Your task to perform on an android device: uninstall "McDonald's" Image 0: 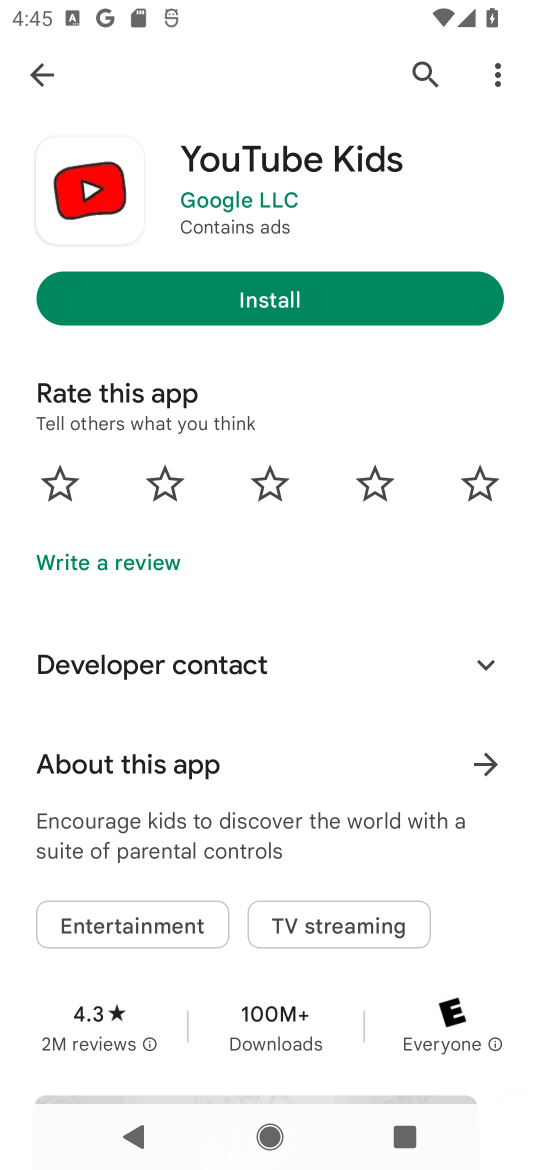
Step 0: click (23, 83)
Your task to perform on an android device: uninstall "McDonald's" Image 1: 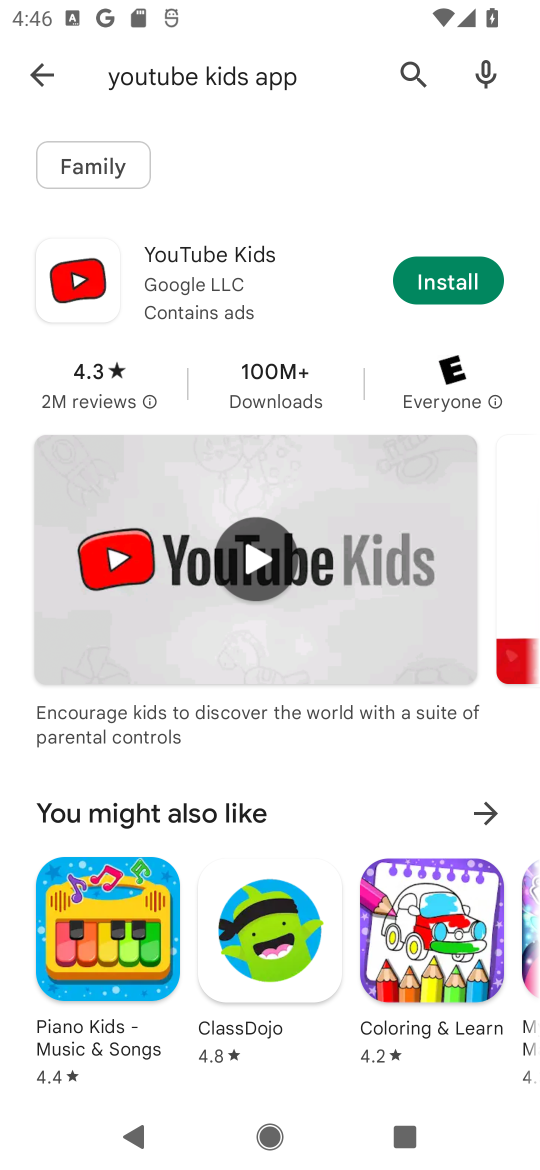
Step 1: click (42, 84)
Your task to perform on an android device: uninstall "McDonald's" Image 2: 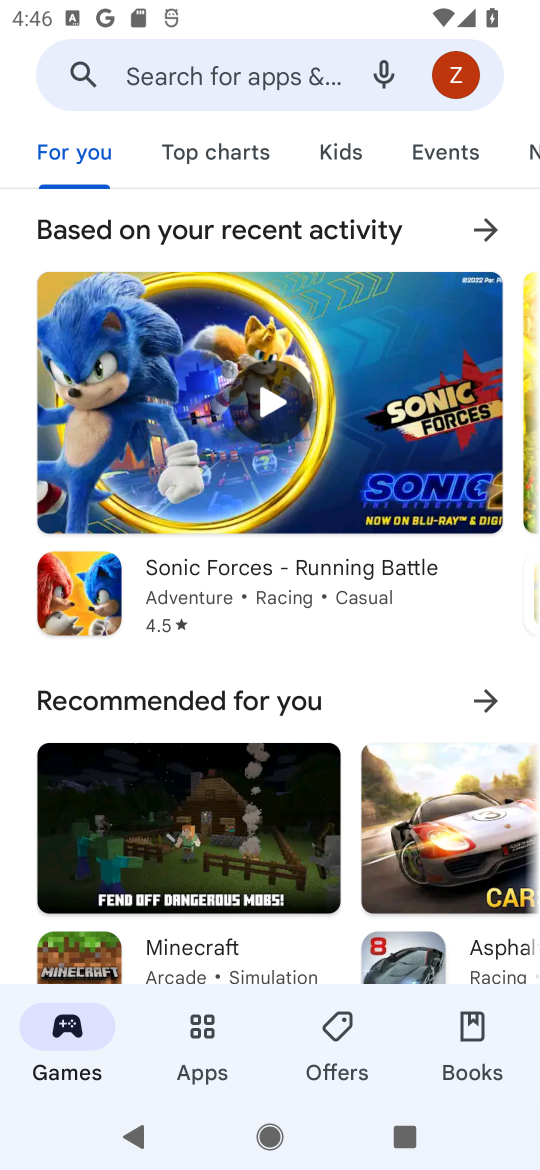
Step 2: click (256, 79)
Your task to perform on an android device: uninstall "McDonald's" Image 3: 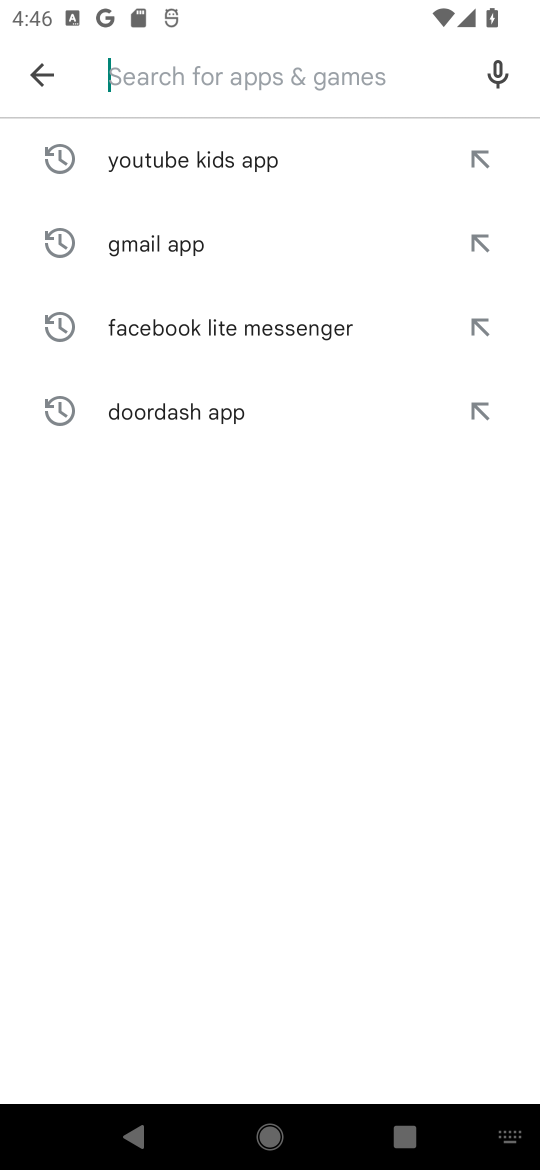
Step 3: type "McDonald's "
Your task to perform on an android device: uninstall "McDonald's" Image 4: 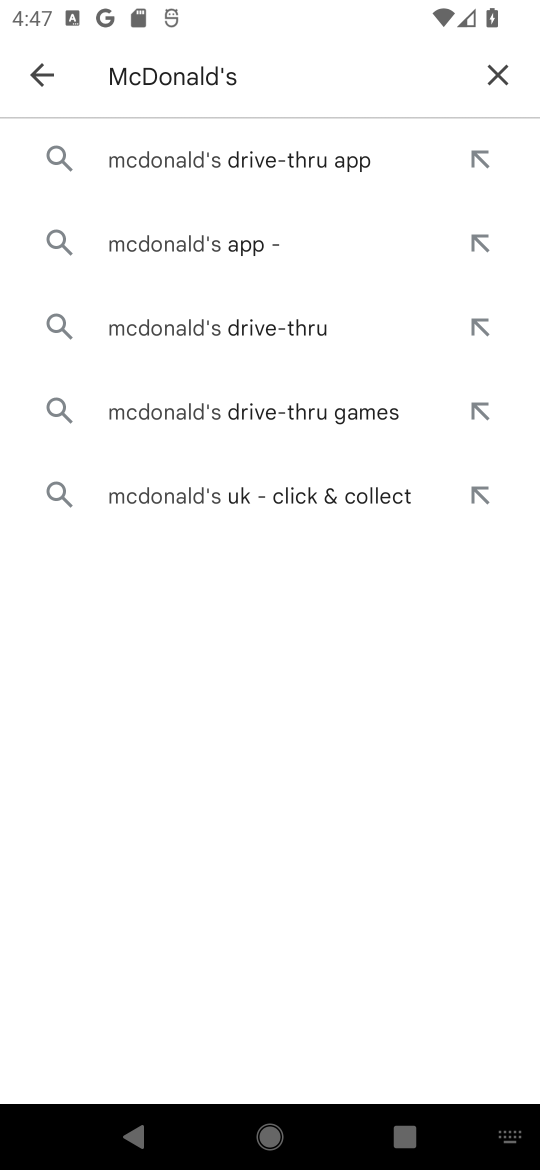
Step 4: click (300, 160)
Your task to perform on an android device: uninstall "McDonald's" Image 5: 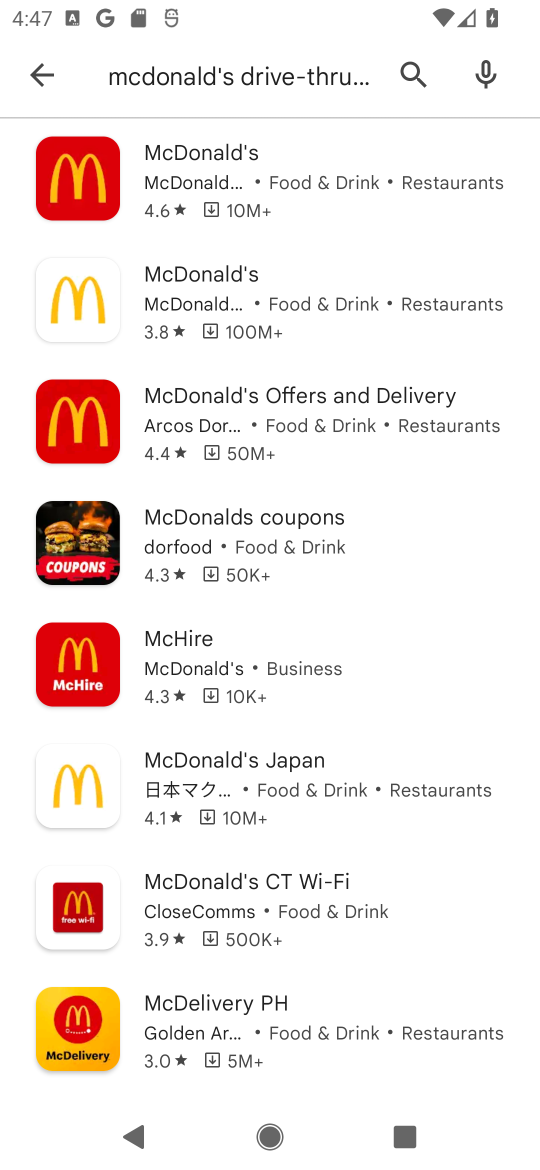
Step 5: click (225, 163)
Your task to perform on an android device: uninstall "McDonald's" Image 6: 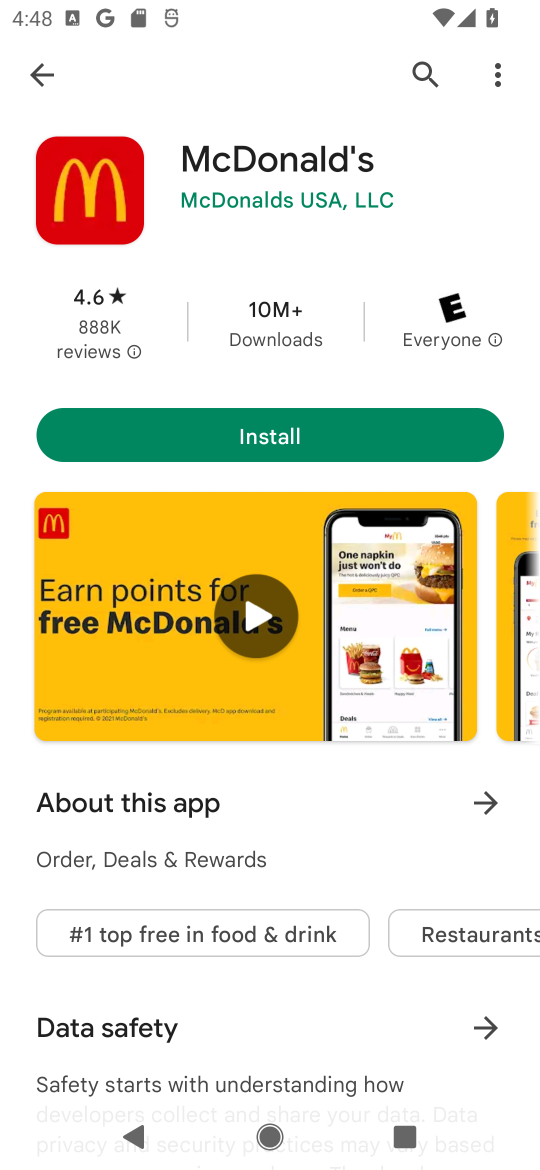
Step 6: task complete